Your task to perform on an android device: Go to wifi settings Image 0: 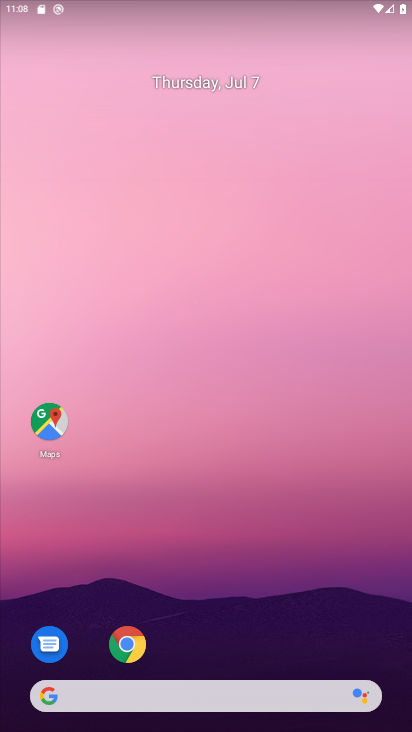
Step 0: drag from (248, 725) to (249, 663)
Your task to perform on an android device: Go to wifi settings Image 1: 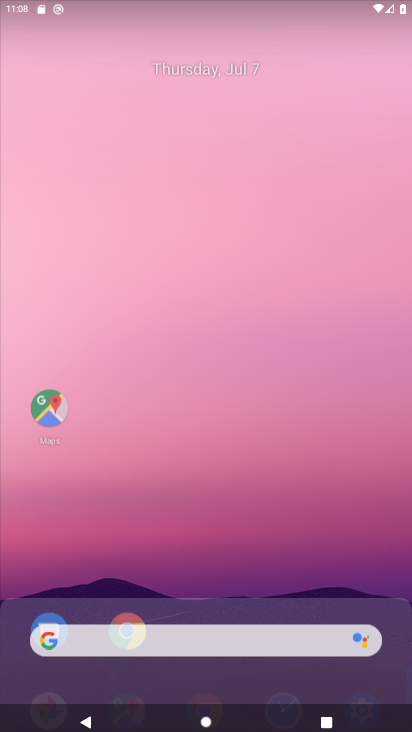
Step 1: click (249, 275)
Your task to perform on an android device: Go to wifi settings Image 2: 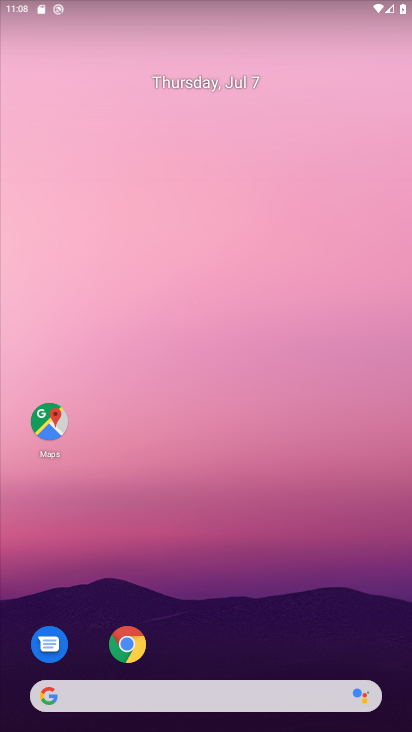
Step 2: drag from (250, 577) to (248, 202)
Your task to perform on an android device: Go to wifi settings Image 3: 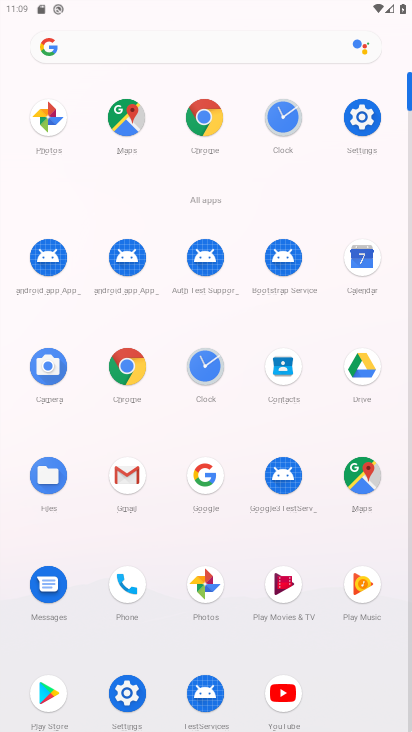
Step 3: click (358, 114)
Your task to perform on an android device: Go to wifi settings Image 4: 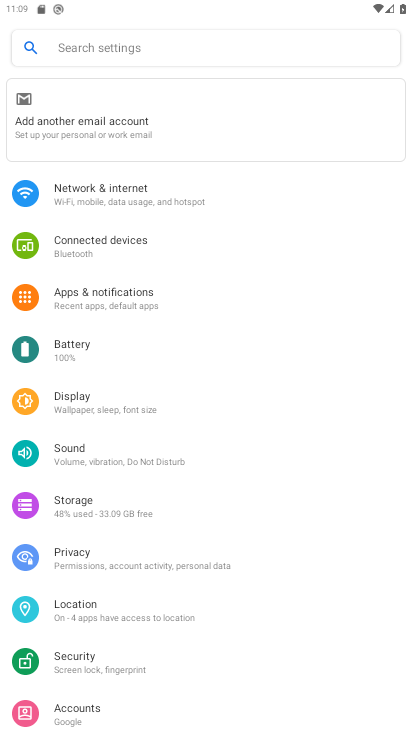
Step 4: click (128, 201)
Your task to perform on an android device: Go to wifi settings Image 5: 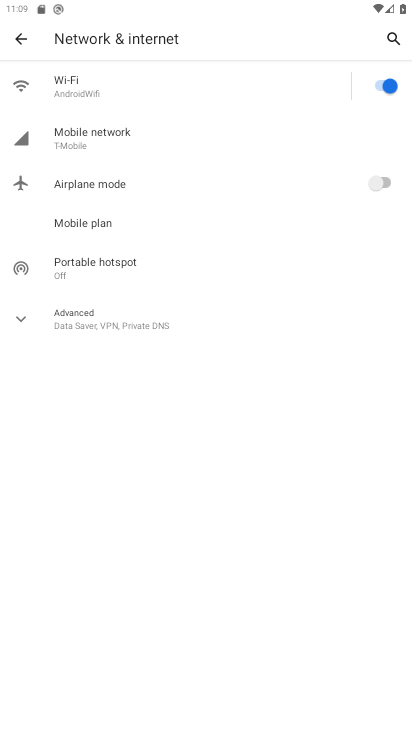
Step 5: click (67, 87)
Your task to perform on an android device: Go to wifi settings Image 6: 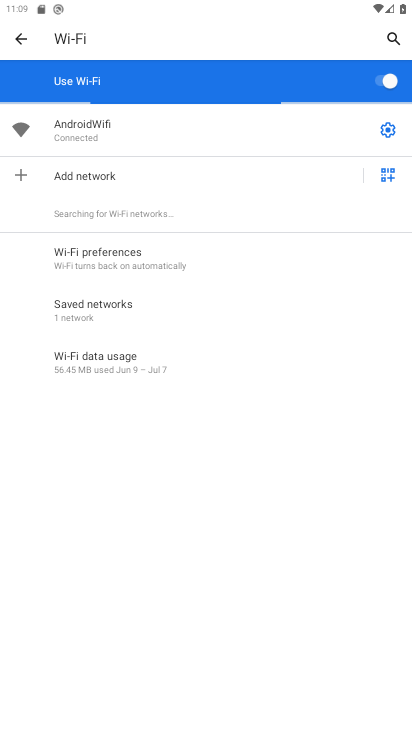
Step 6: task complete